Your task to perform on an android device: Play the last video I watched on Youtube Image 0: 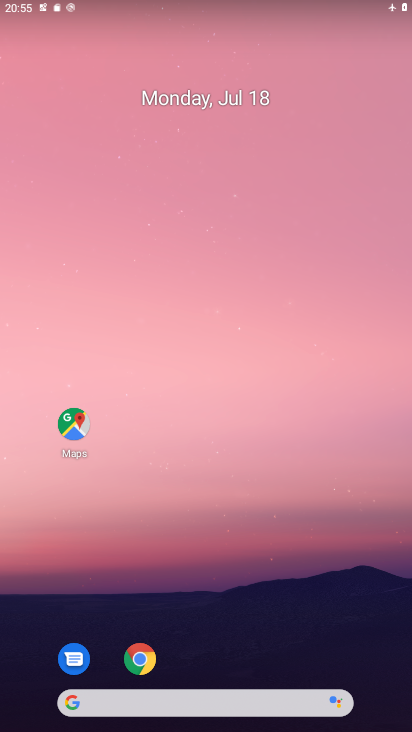
Step 0: drag from (319, 665) to (252, 186)
Your task to perform on an android device: Play the last video I watched on Youtube Image 1: 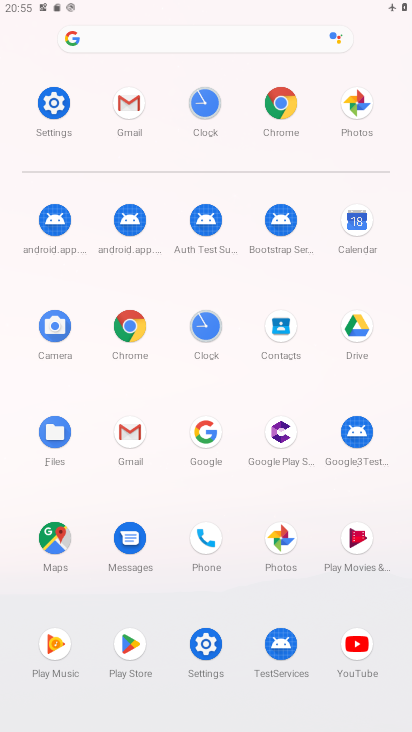
Step 1: click (353, 637)
Your task to perform on an android device: Play the last video I watched on Youtube Image 2: 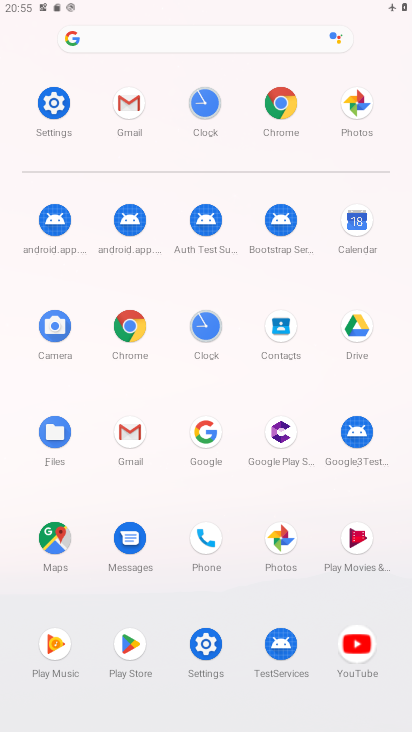
Step 2: click (353, 637)
Your task to perform on an android device: Play the last video I watched on Youtube Image 3: 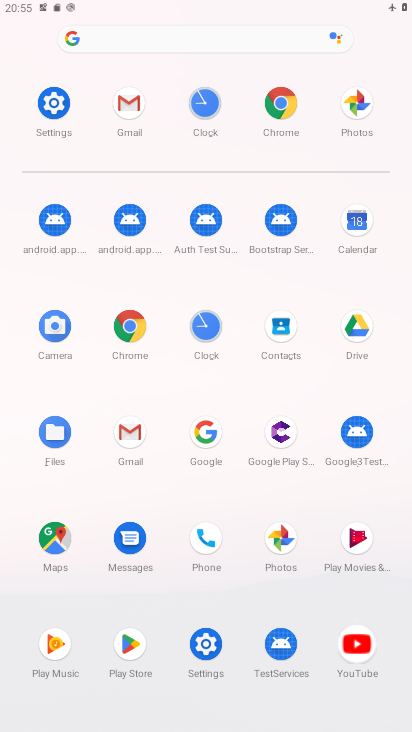
Step 3: click (353, 637)
Your task to perform on an android device: Play the last video I watched on Youtube Image 4: 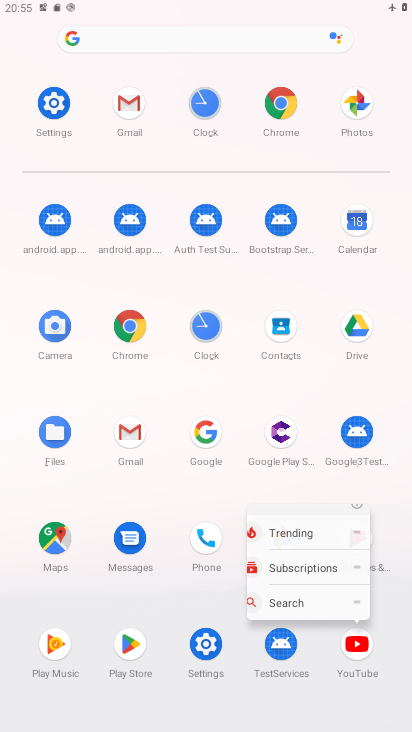
Step 4: click (354, 645)
Your task to perform on an android device: Play the last video I watched on Youtube Image 5: 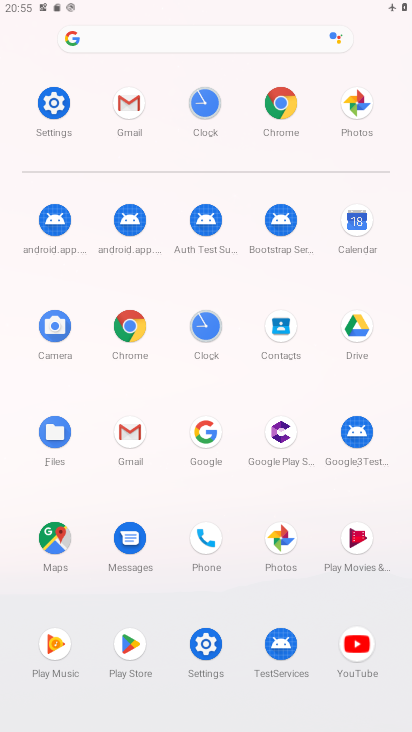
Step 5: click (356, 650)
Your task to perform on an android device: Play the last video I watched on Youtube Image 6: 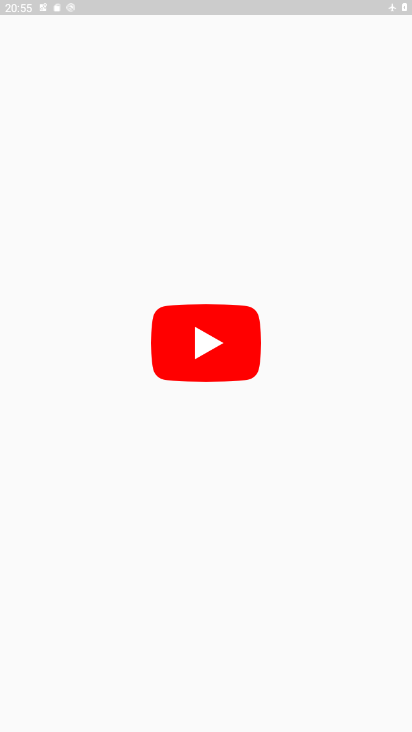
Step 6: click (356, 650)
Your task to perform on an android device: Play the last video I watched on Youtube Image 7: 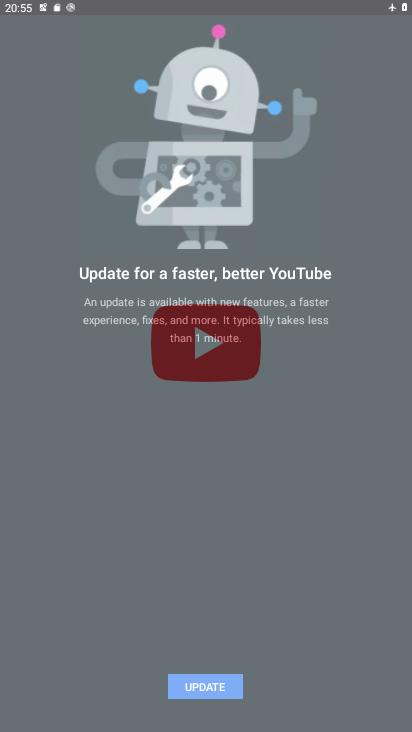
Step 7: click (357, 650)
Your task to perform on an android device: Play the last video I watched on Youtube Image 8: 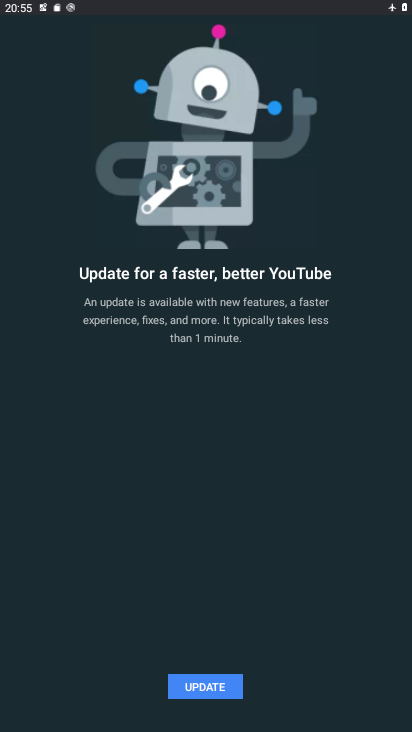
Step 8: click (363, 646)
Your task to perform on an android device: Play the last video I watched on Youtube Image 9: 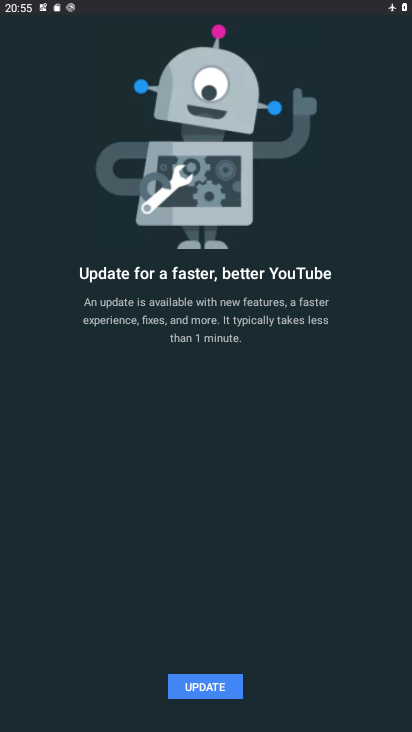
Step 9: click (185, 669)
Your task to perform on an android device: Play the last video I watched on Youtube Image 10: 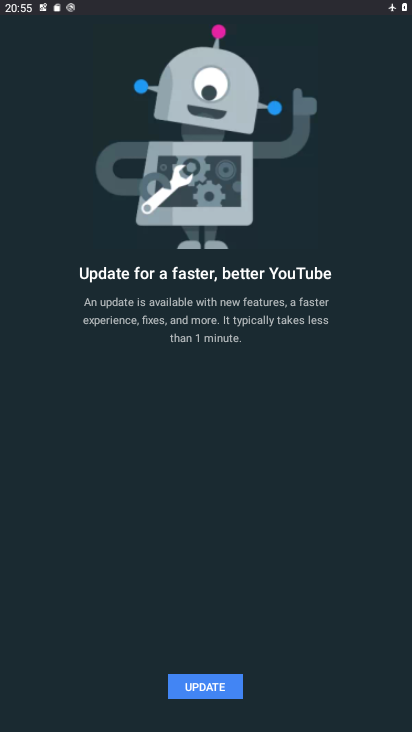
Step 10: click (222, 677)
Your task to perform on an android device: Play the last video I watched on Youtube Image 11: 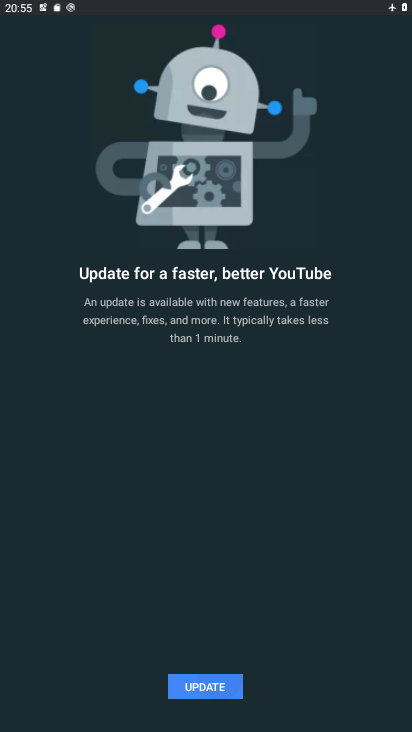
Step 11: click (222, 677)
Your task to perform on an android device: Play the last video I watched on Youtube Image 12: 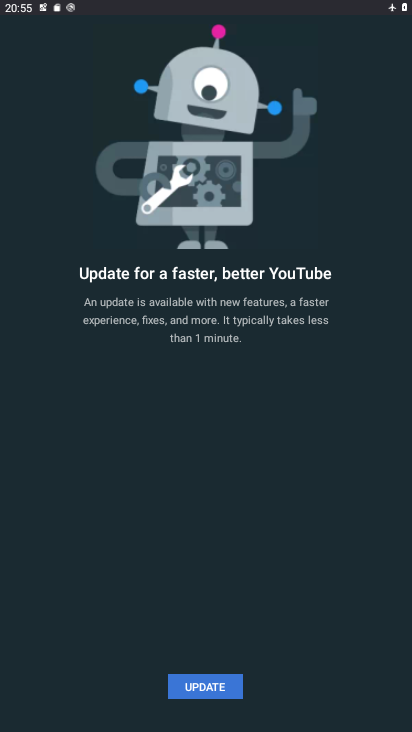
Step 12: click (221, 678)
Your task to perform on an android device: Play the last video I watched on Youtube Image 13: 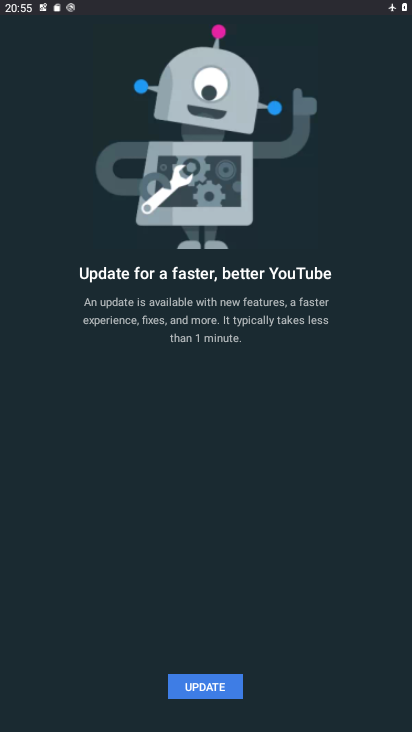
Step 13: click (221, 678)
Your task to perform on an android device: Play the last video I watched on Youtube Image 14: 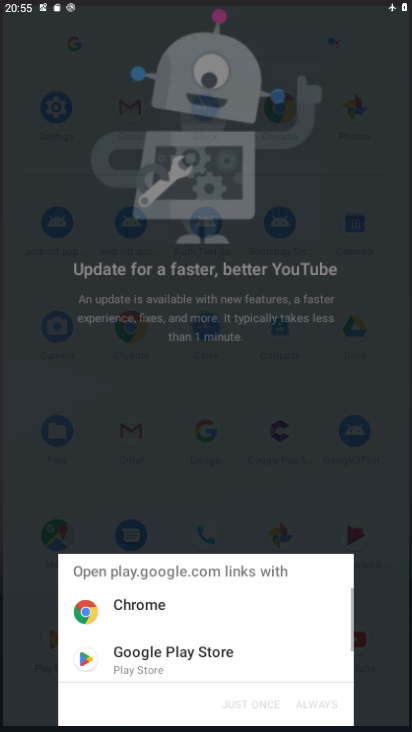
Step 14: click (221, 678)
Your task to perform on an android device: Play the last video I watched on Youtube Image 15: 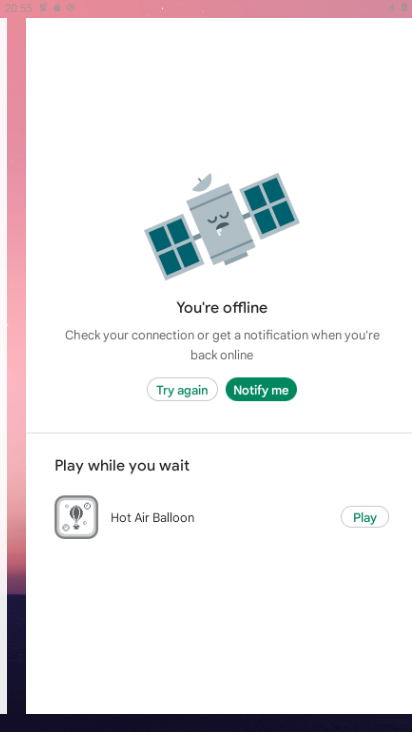
Step 15: click (139, 605)
Your task to perform on an android device: Play the last video I watched on Youtube Image 16: 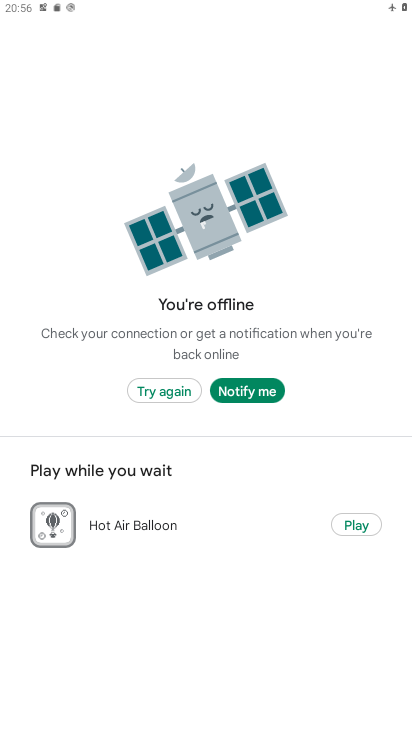
Step 16: task complete